Your task to perform on an android device: toggle translation in the chrome app Image 0: 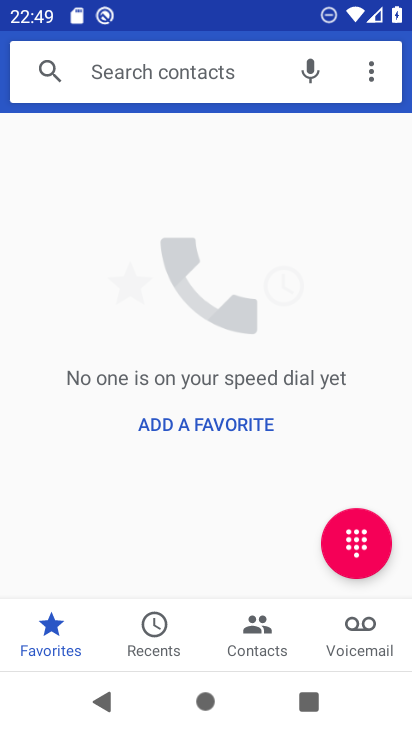
Step 0: press home button
Your task to perform on an android device: toggle translation in the chrome app Image 1: 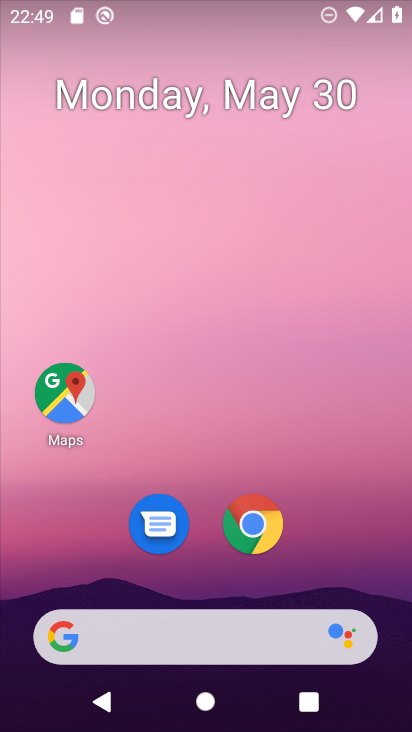
Step 1: click (266, 533)
Your task to perform on an android device: toggle translation in the chrome app Image 2: 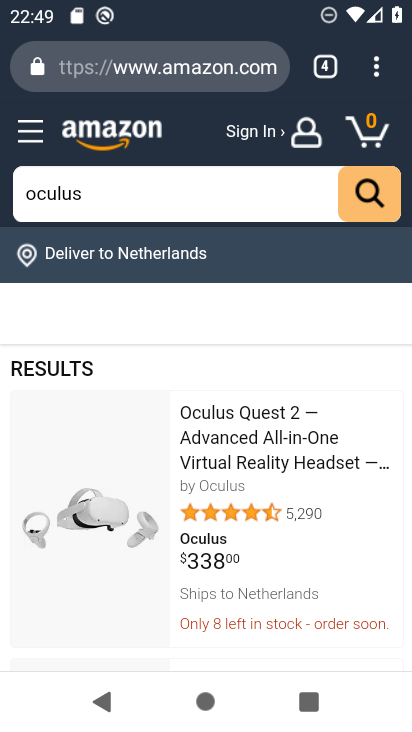
Step 2: click (377, 72)
Your task to perform on an android device: toggle translation in the chrome app Image 3: 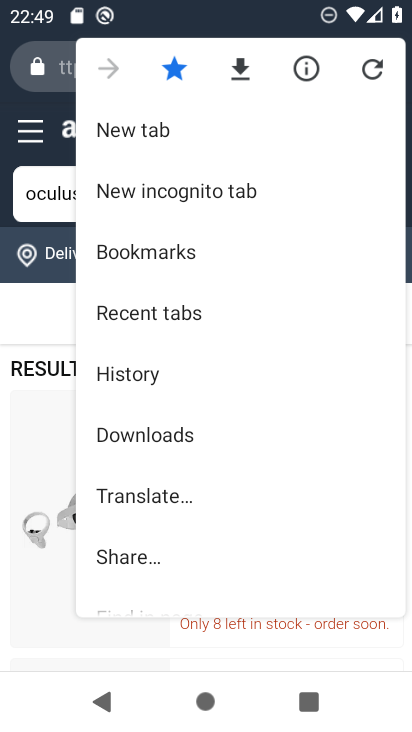
Step 3: drag from (259, 517) to (244, 204)
Your task to perform on an android device: toggle translation in the chrome app Image 4: 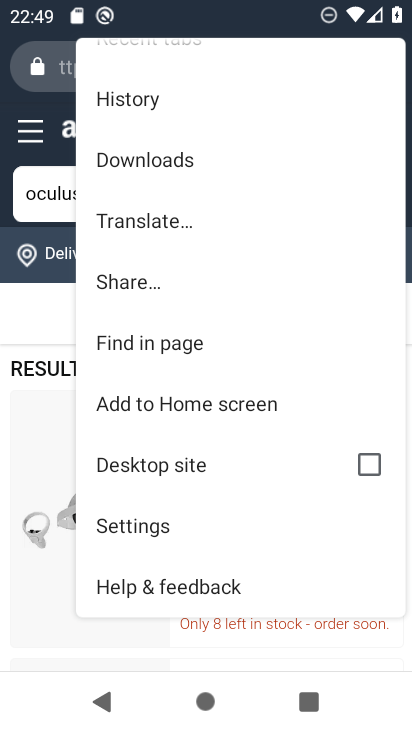
Step 4: click (180, 519)
Your task to perform on an android device: toggle translation in the chrome app Image 5: 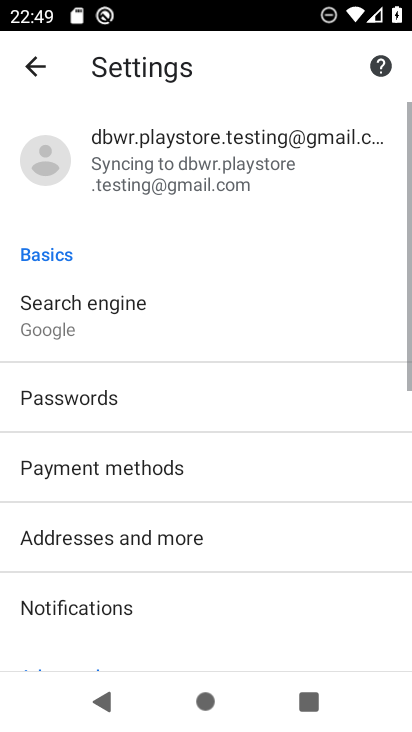
Step 5: drag from (252, 547) to (266, 158)
Your task to perform on an android device: toggle translation in the chrome app Image 6: 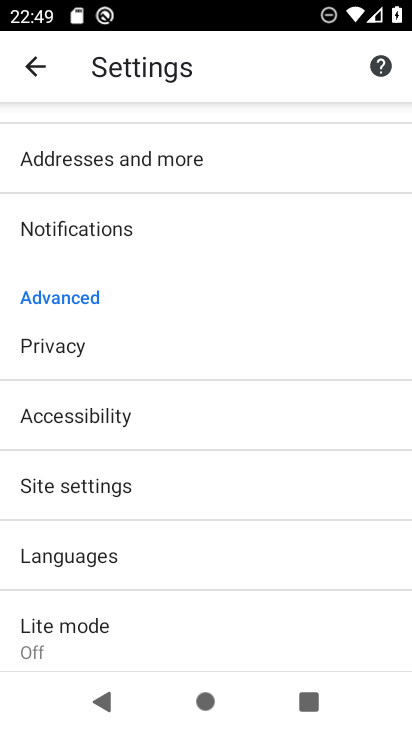
Step 6: click (257, 545)
Your task to perform on an android device: toggle translation in the chrome app Image 7: 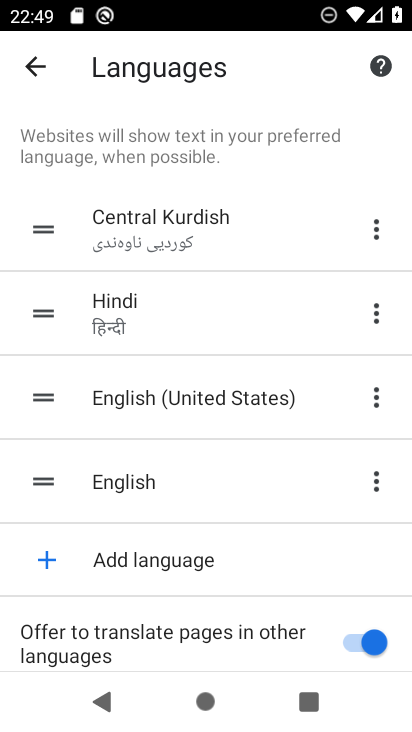
Step 7: click (361, 641)
Your task to perform on an android device: toggle translation in the chrome app Image 8: 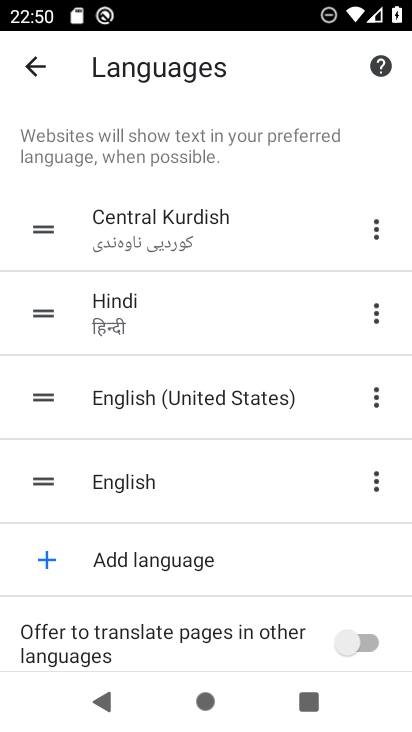
Step 8: task complete